Your task to perform on an android device: turn on airplane mode Image 0: 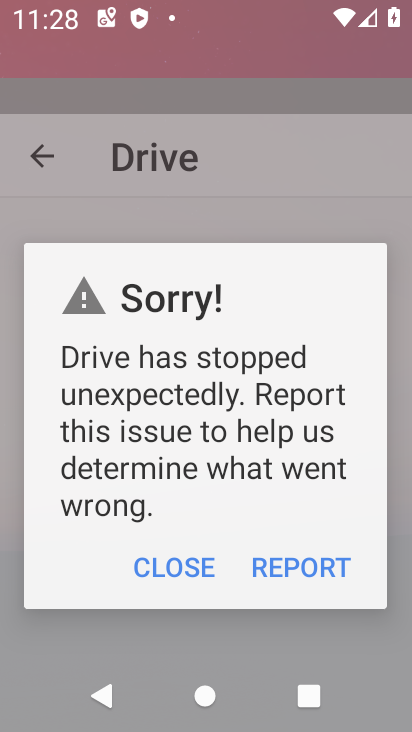
Step 0: press home button
Your task to perform on an android device: turn on airplane mode Image 1: 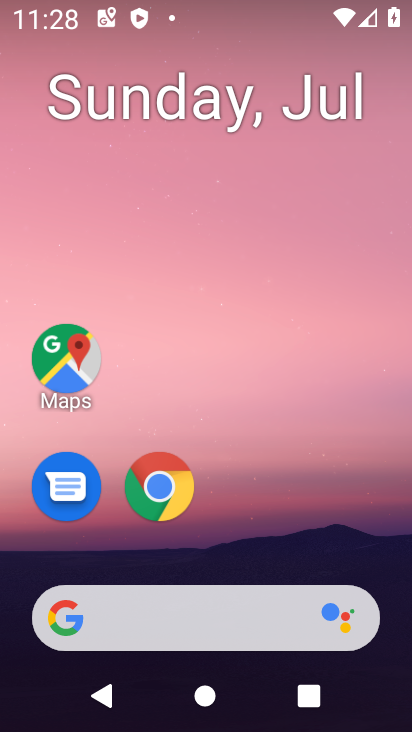
Step 1: drag from (392, 554) to (352, 150)
Your task to perform on an android device: turn on airplane mode Image 2: 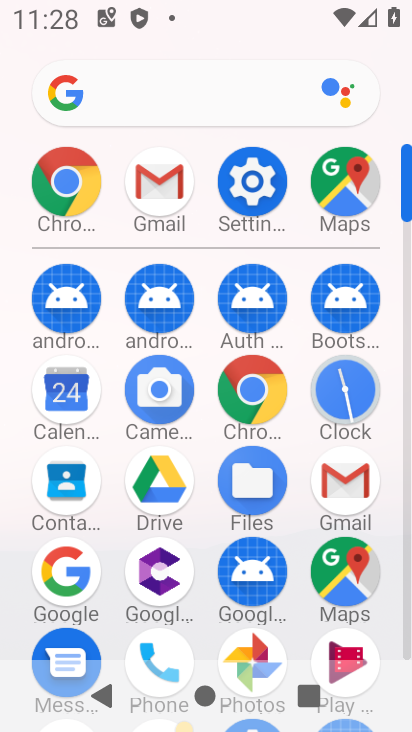
Step 2: click (263, 195)
Your task to perform on an android device: turn on airplane mode Image 3: 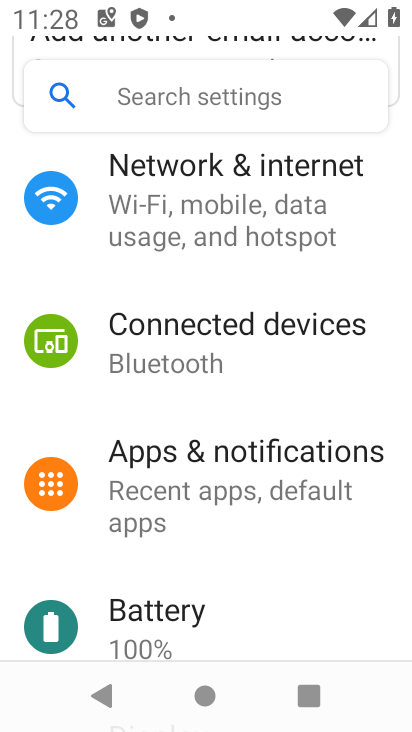
Step 3: drag from (351, 526) to (353, 398)
Your task to perform on an android device: turn on airplane mode Image 4: 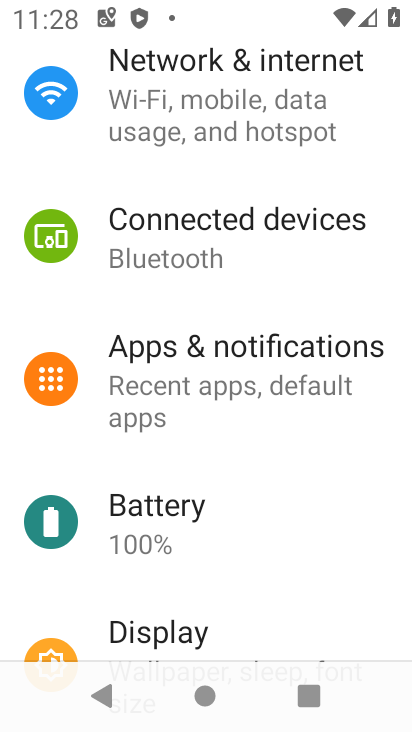
Step 4: drag from (335, 562) to (336, 445)
Your task to perform on an android device: turn on airplane mode Image 5: 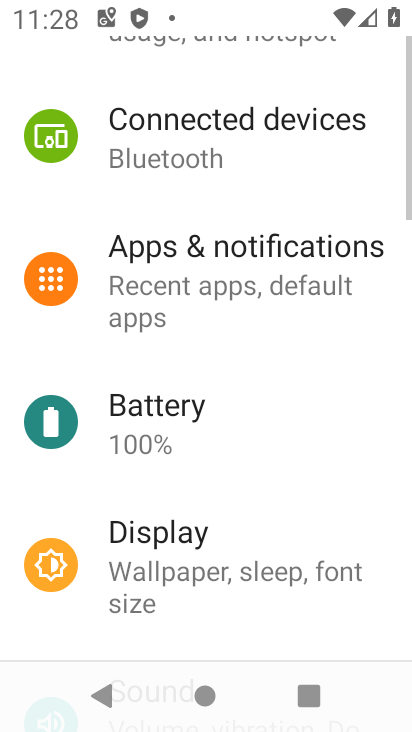
Step 5: drag from (331, 524) to (332, 489)
Your task to perform on an android device: turn on airplane mode Image 6: 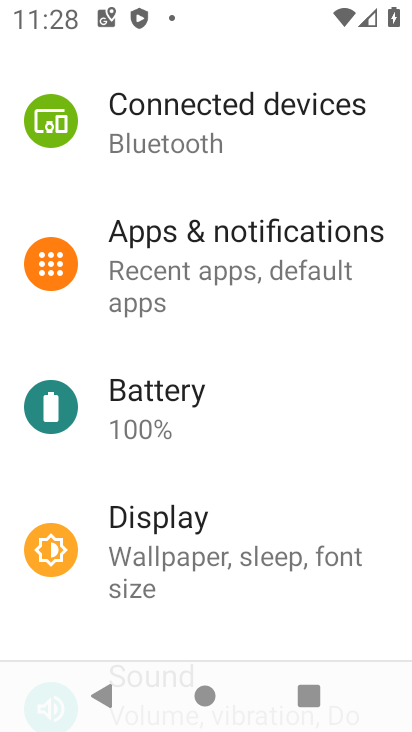
Step 6: drag from (326, 598) to (327, 438)
Your task to perform on an android device: turn on airplane mode Image 7: 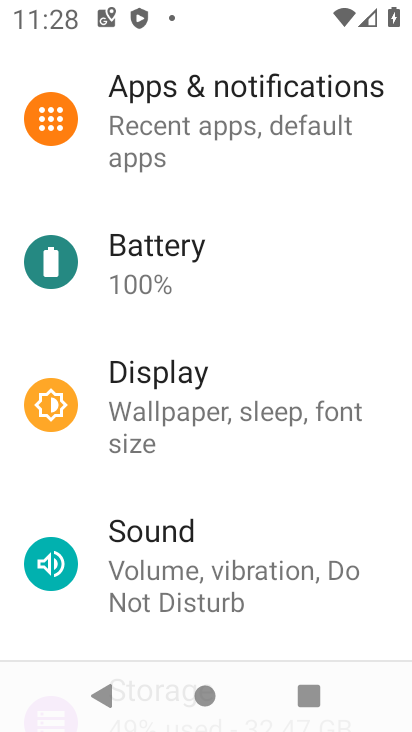
Step 7: drag from (362, 522) to (363, 420)
Your task to perform on an android device: turn on airplane mode Image 8: 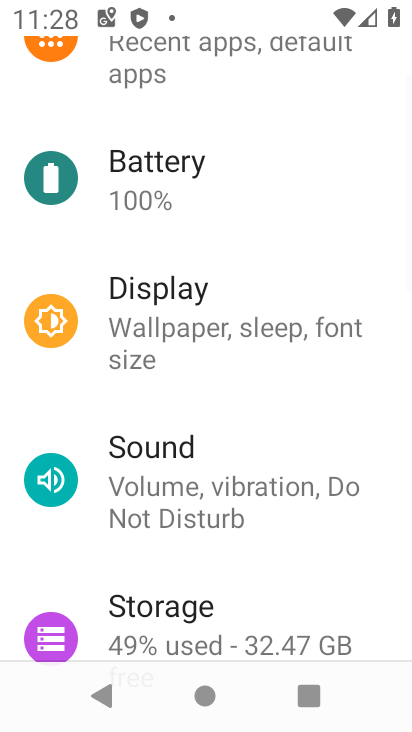
Step 8: drag from (339, 550) to (336, 414)
Your task to perform on an android device: turn on airplane mode Image 9: 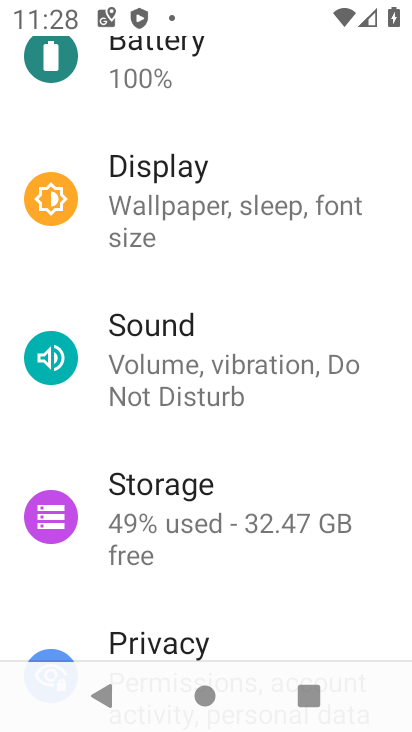
Step 9: drag from (342, 593) to (336, 358)
Your task to perform on an android device: turn on airplane mode Image 10: 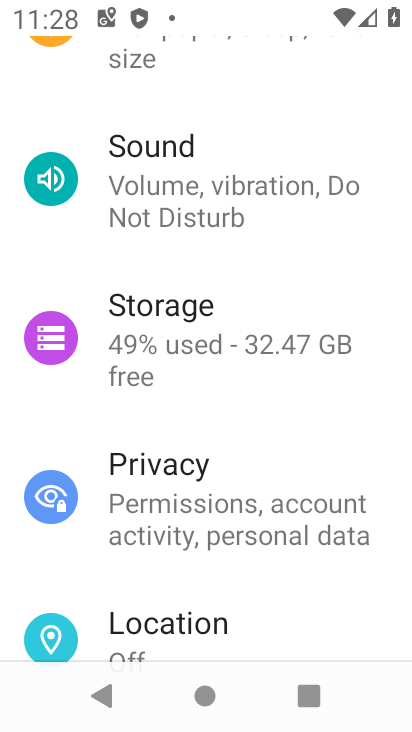
Step 10: drag from (359, 211) to (344, 385)
Your task to perform on an android device: turn on airplane mode Image 11: 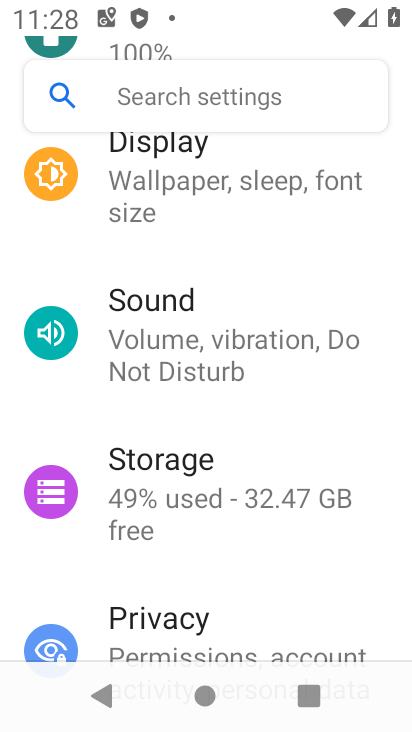
Step 11: drag from (365, 222) to (351, 393)
Your task to perform on an android device: turn on airplane mode Image 12: 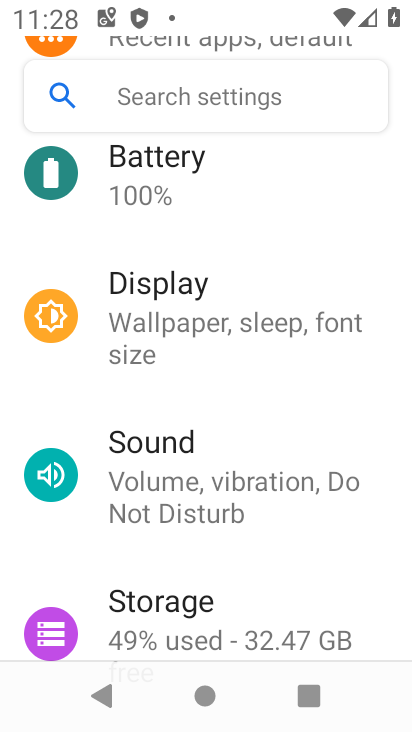
Step 12: drag from (359, 204) to (359, 368)
Your task to perform on an android device: turn on airplane mode Image 13: 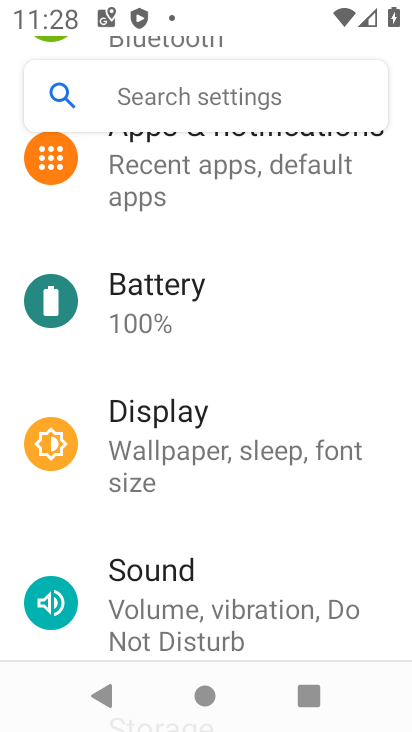
Step 13: drag from (362, 184) to (357, 354)
Your task to perform on an android device: turn on airplane mode Image 14: 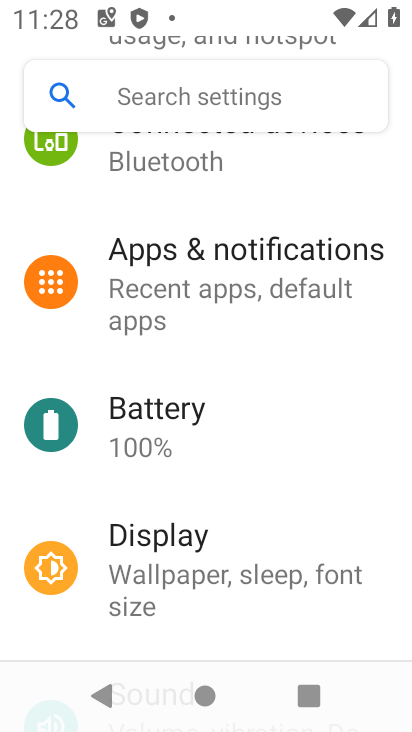
Step 14: drag from (357, 192) to (344, 407)
Your task to perform on an android device: turn on airplane mode Image 15: 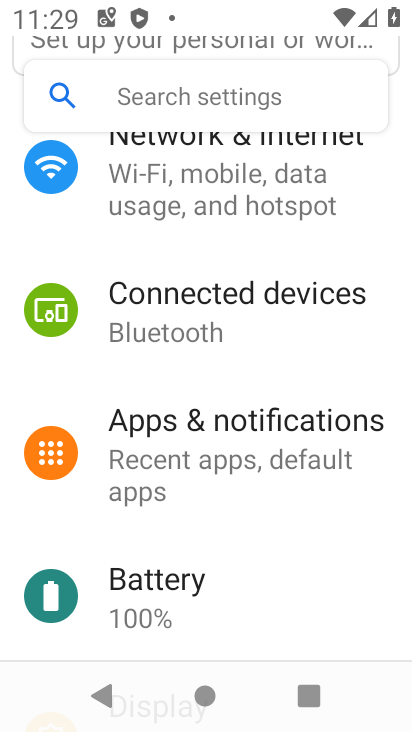
Step 15: drag from (361, 173) to (356, 359)
Your task to perform on an android device: turn on airplane mode Image 16: 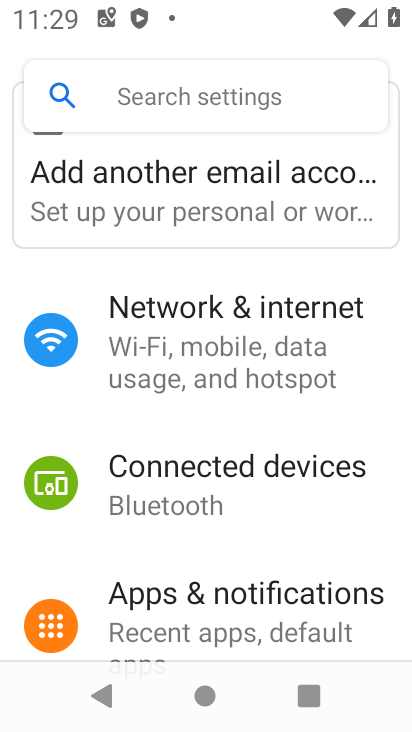
Step 16: click (321, 352)
Your task to perform on an android device: turn on airplane mode Image 17: 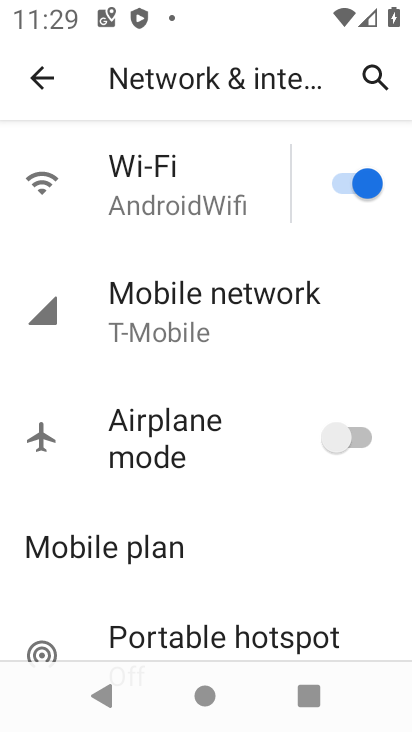
Step 17: click (349, 430)
Your task to perform on an android device: turn on airplane mode Image 18: 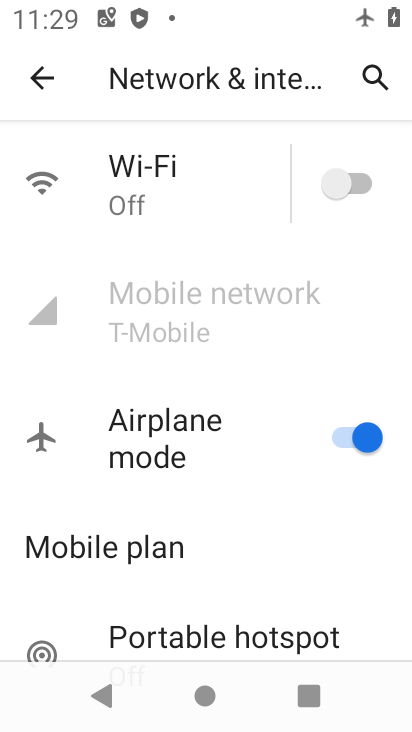
Step 18: task complete